Your task to perform on an android device: Google the capital of Peru Image 0: 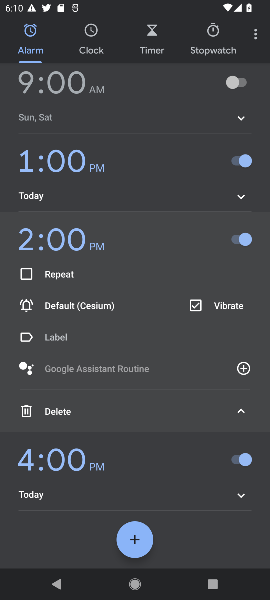
Step 0: press home button
Your task to perform on an android device: Google the capital of Peru Image 1: 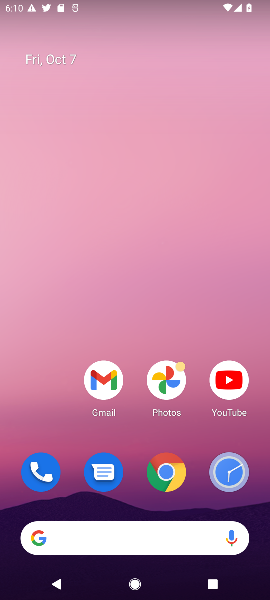
Step 1: click (173, 468)
Your task to perform on an android device: Google the capital of Peru Image 2: 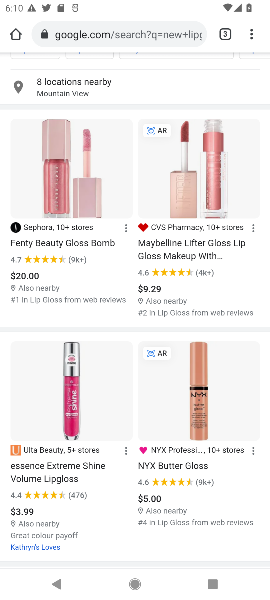
Step 2: click (178, 30)
Your task to perform on an android device: Google the capital of Peru Image 3: 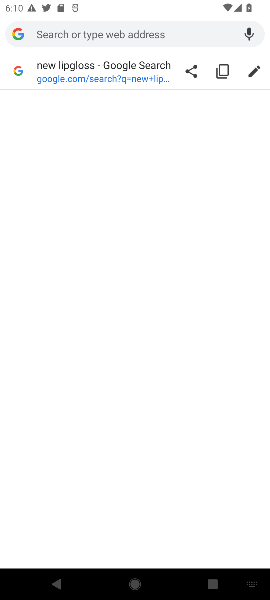
Step 3: type "capital of Peru"
Your task to perform on an android device: Google the capital of Peru Image 4: 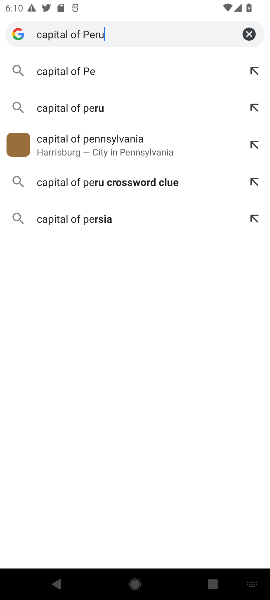
Step 4: type ""
Your task to perform on an android device: Google the capital of Peru Image 5: 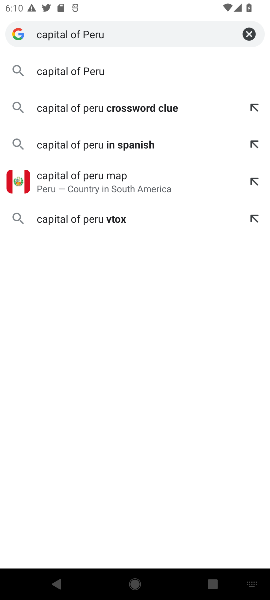
Step 5: click (115, 66)
Your task to perform on an android device: Google the capital of Peru Image 6: 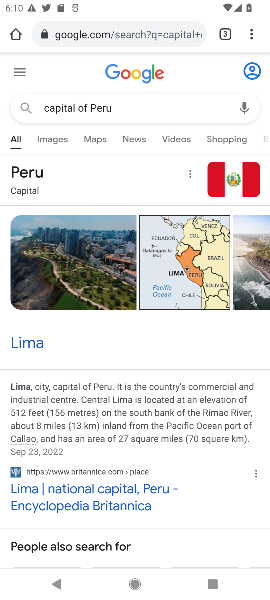
Step 6: task complete